Your task to perform on an android device: Open Youtube and go to "Your channel" Image 0: 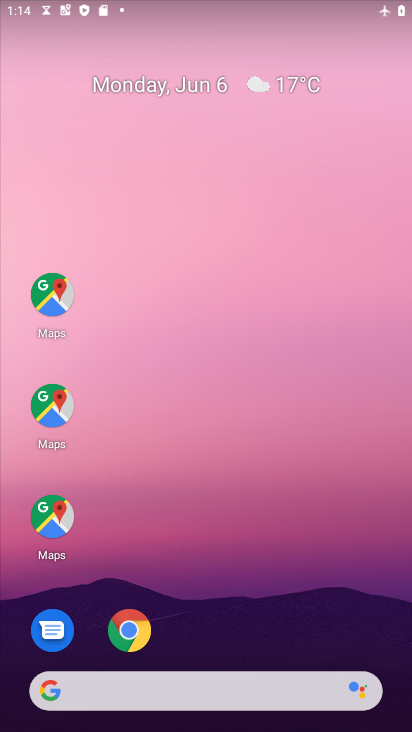
Step 0: drag from (322, 691) to (176, 89)
Your task to perform on an android device: Open Youtube and go to "Your channel" Image 1: 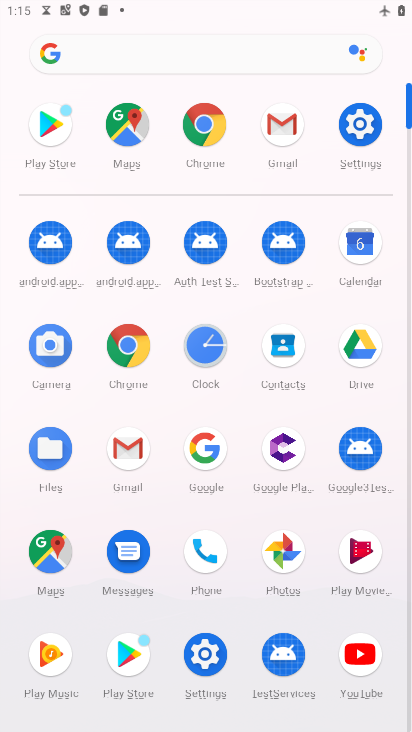
Step 1: click (348, 645)
Your task to perform on an android device: Open Youtube and go to "Your channel" Image 2: 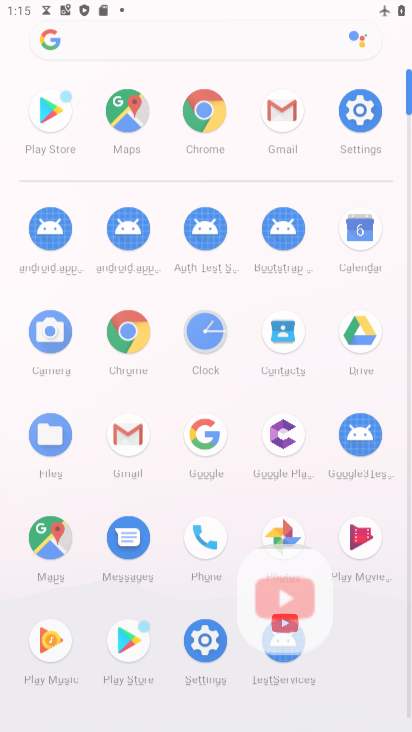
Step 2: click (348, 645)
Your task to perform on an android device: Open Youtube and go to "Your channel" Image 3: 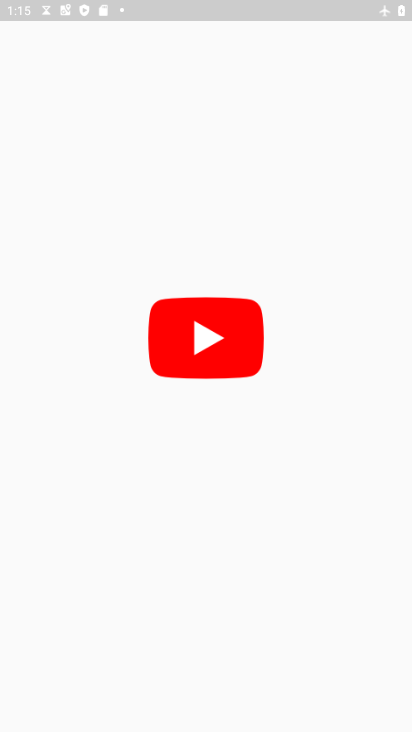
Step 3: click (349, 643)
Your task to perform on an android device: Open Youtube and go to "Your channel" Image 4: 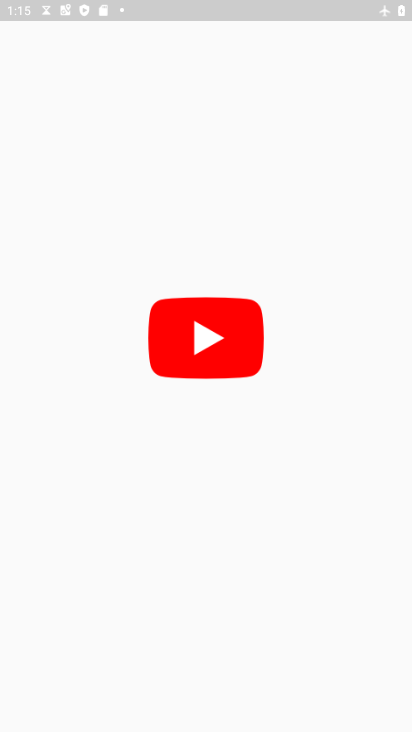
Step 4: click (352, 637)
Your task to perform on an android device: Open Youtube and go to "Your channel" Image 5: 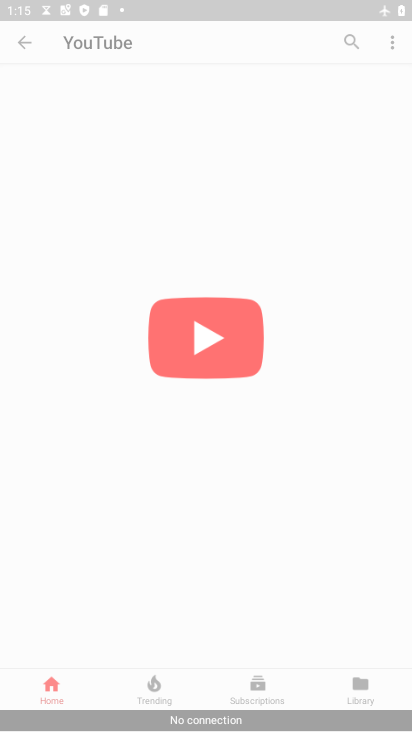
Step 5: click (357, 631)
Your task to perform on an android device: Open Youtube and go to "Your channel" Image 6: 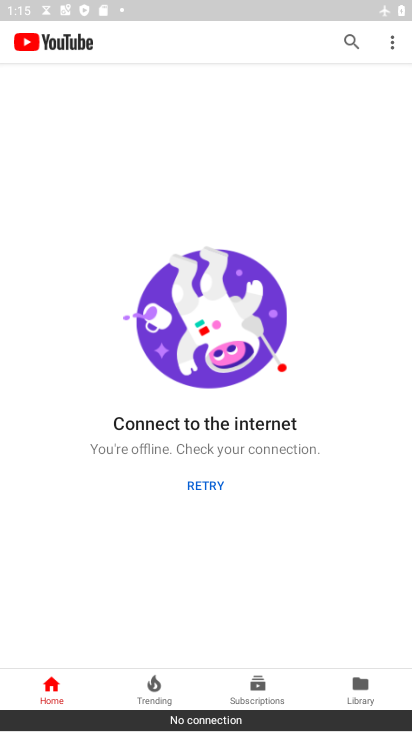
Step 6: task complete